Your task to perform on an android device: turn pop-ups on in chrome Image 0: 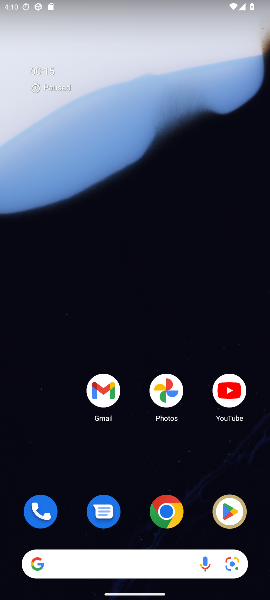
Step 0: click (166, 502)
Your task to perform on an android device: turn pop-ups on in chrome Image 1: 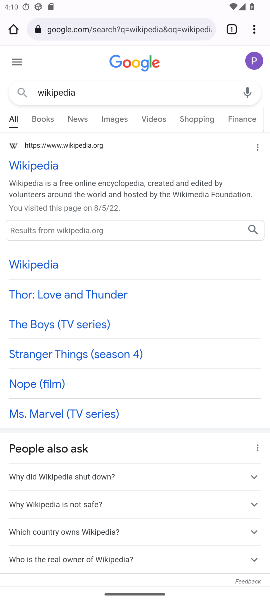
Step 1: click (261, 30)
Your task to perform on an android device: turn pop-ups on in chrome Image 2: 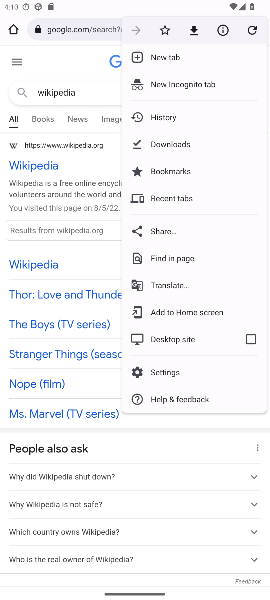
Step 2: click (162, 371)
Your task to perform on an android device: turn pop-ups on in chrome Image 3: 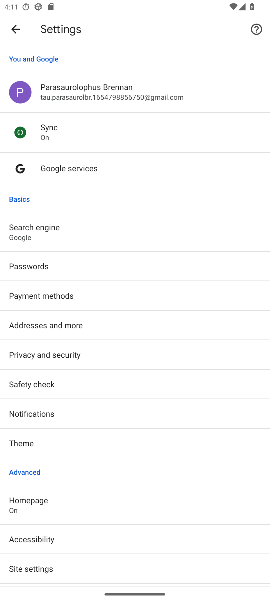
Step 3: click (34, 566)
Your task to perform on an android device: turn pop-ups on in chrome Image 4: 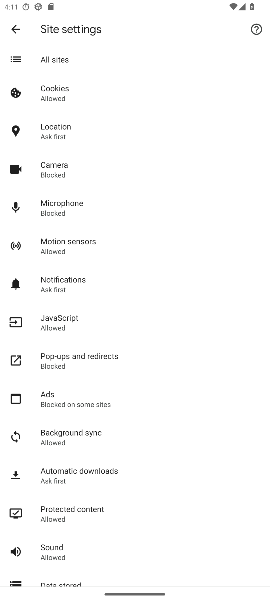
Step 4: click (64, 358)
Your task to perform on an android device: turn pop-ups on in chrome Image 5: 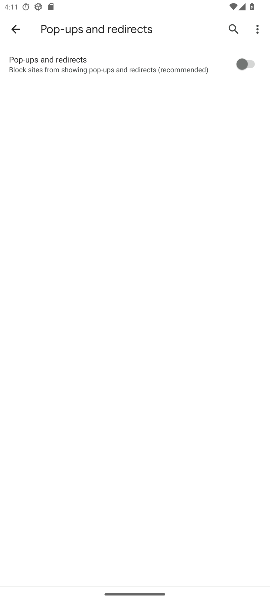
Step 5: click (214, 61)
Your task to perform on an android device: turn pop-ups on in chrome Image 6: 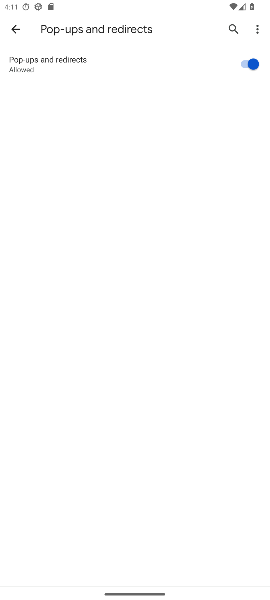
Step 6: task complete